Your task to perform on an android device: change keyboard looks Image 0: 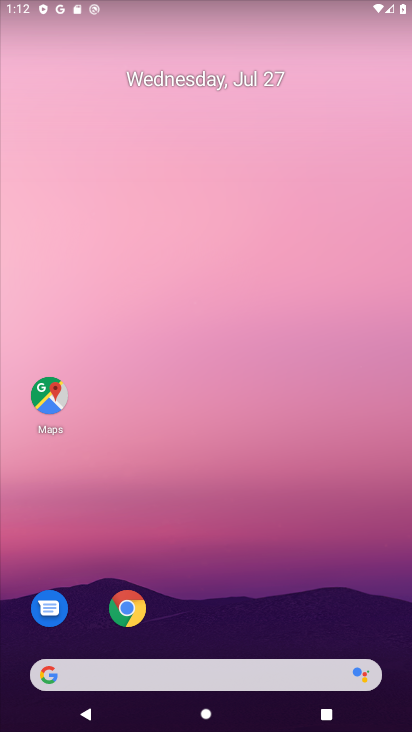
Step 0: drag from (184, 568) to (207, 70)
Your task to perform on an android device: change keyboard looks Image 1: 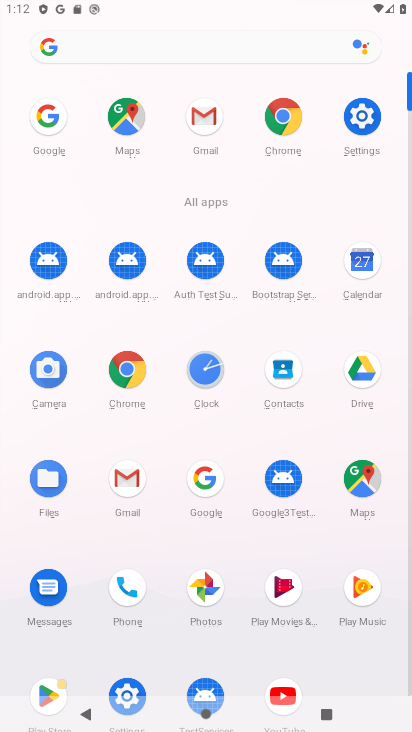
Step 1: click (354, 113)
Your task to perform on an android device: change keyboard looks Image 2: 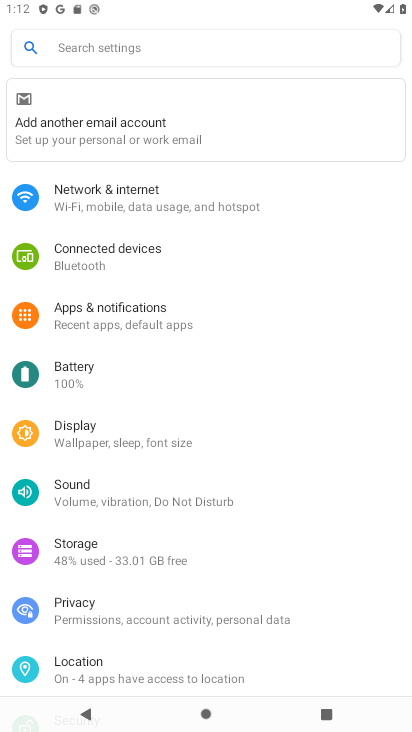
Step 2: click (160, 286)
Your task to perform on an android device: change keyboard looks Image 3: 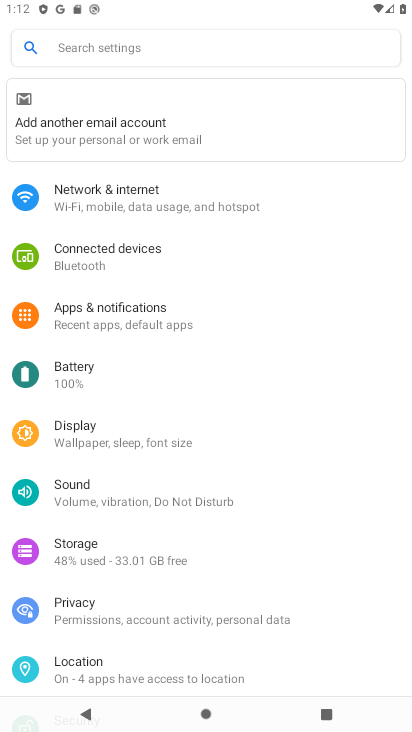
Step 3: drag from (110, 612) to (138, 211)
Your task to perform on an android device: change keyboard looks Image 4: 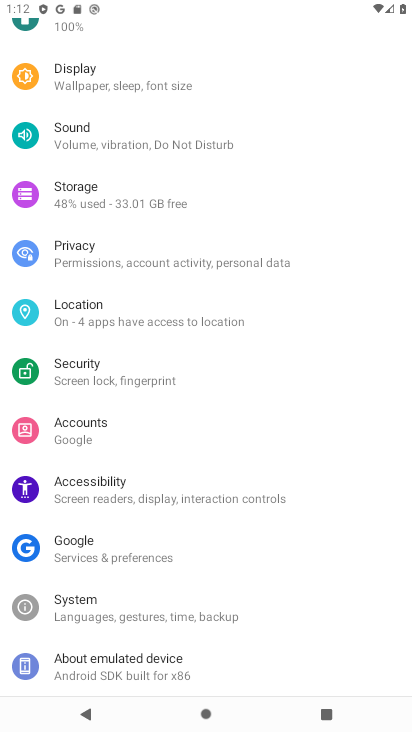
Step 4: drag from (120, 535) to (143, 314)
Your task to perform on an android device: change keyboard looks Image 5: 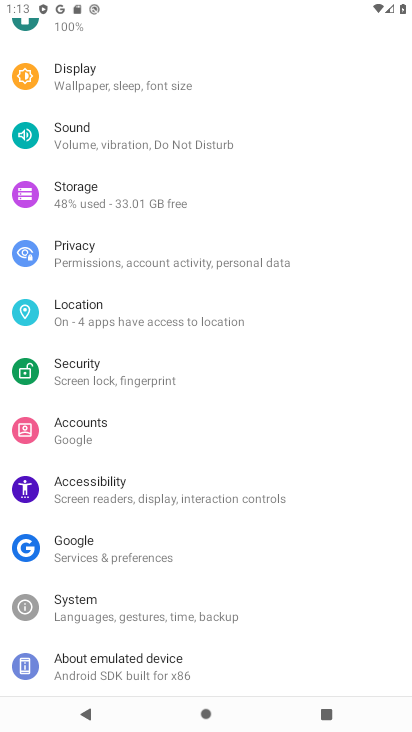
Step 5: click (56, 616)
Your task to perform on an android device: change keyboard looks Image 6: 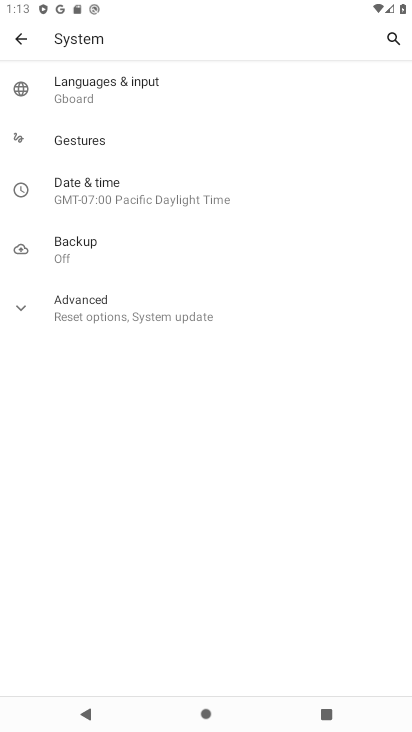
Step 6: click (78, 95)
Your task to perform on an android device: change keyboard looks Image 7: 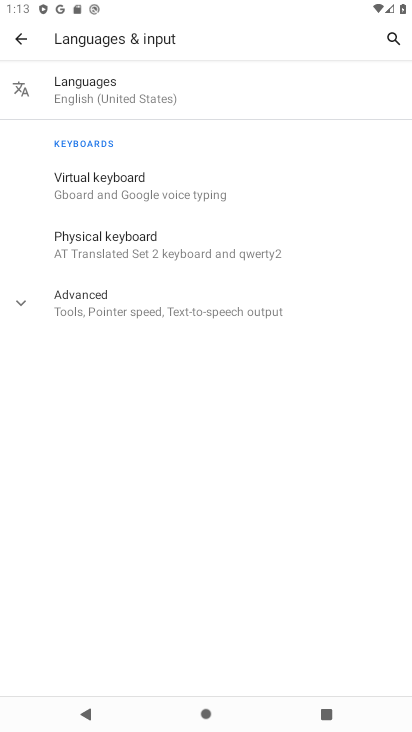
Step 7: click (137, 188)
Your task to perform on an android device: change keyboard looks Image 8: 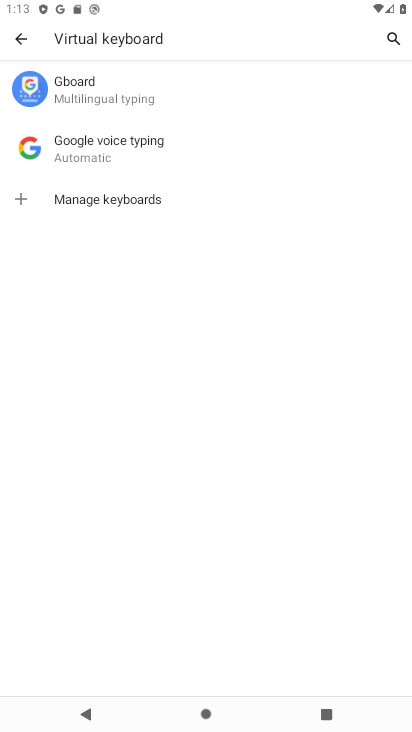
Step 8: click (56, 91)
Your task to perform on an android device: change keyboard looks Image 9: 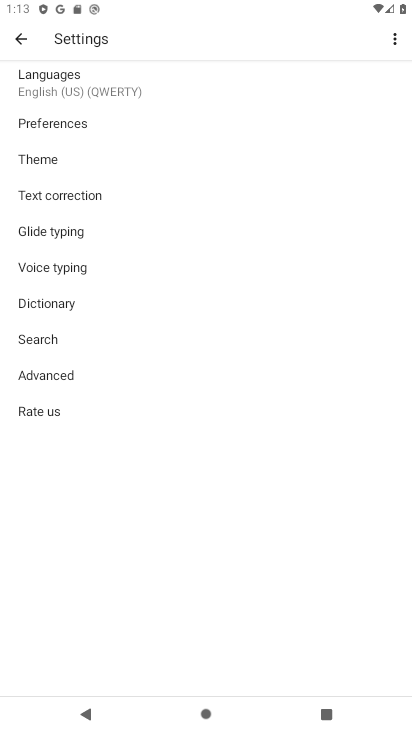
Step 9: click (24, 154)
Your task to perform on an android device: change keyboard looks Image 10: 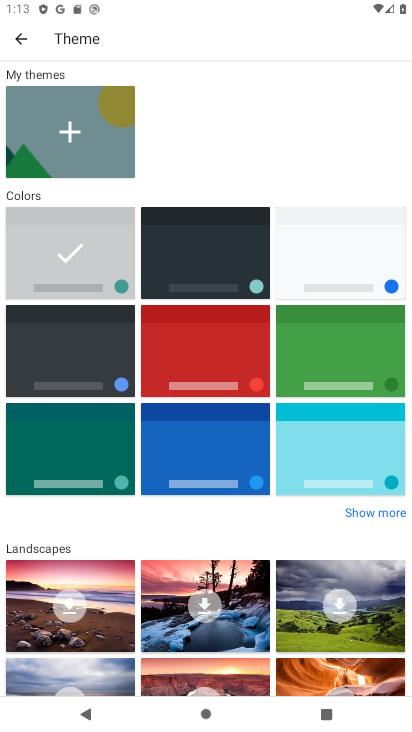
Step 10: click (256, 249)
Your task to perform on an android device: change keyboard looks Image 11: 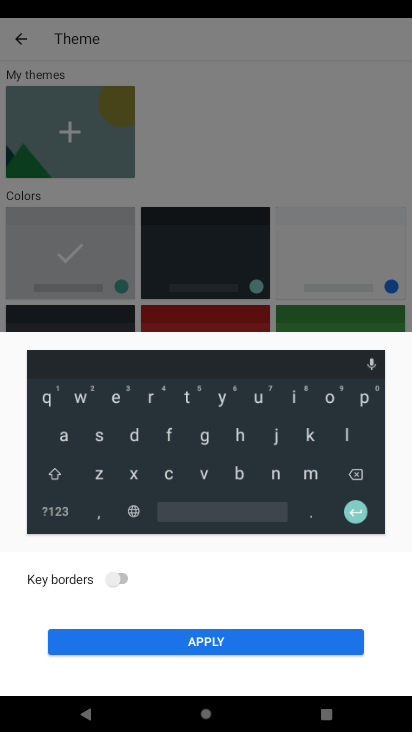
Step 11: click (265, 636)
Your task to perform on an android device: change keyboard looks Image 12: 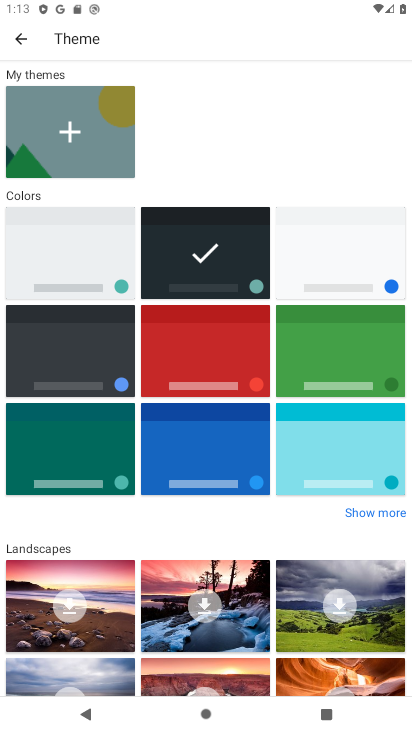
Step 12: task complete